Your task to perform on an android device: turn off sleep mode Image 0: 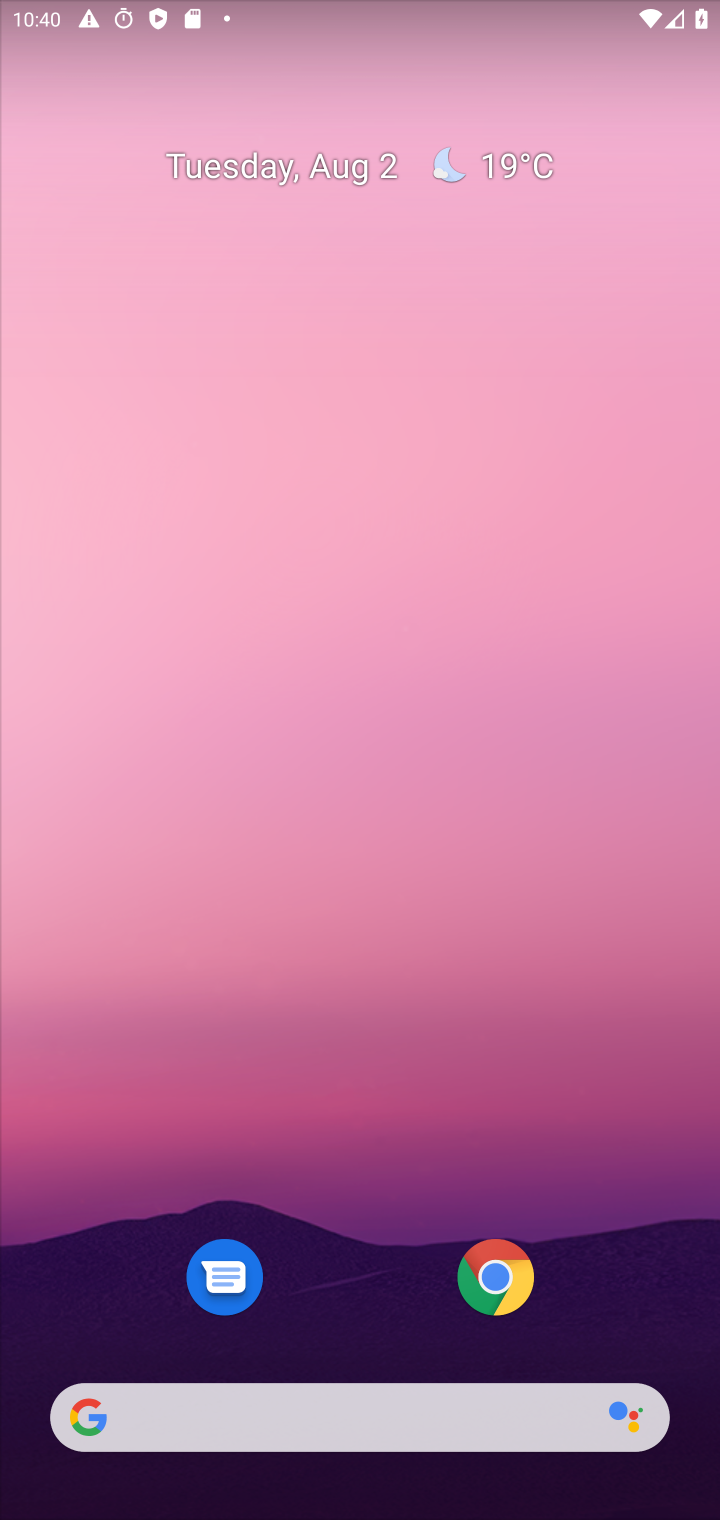
Step 0: press home button
Your task to perform on an android device: turn off sleep mode Image 1: 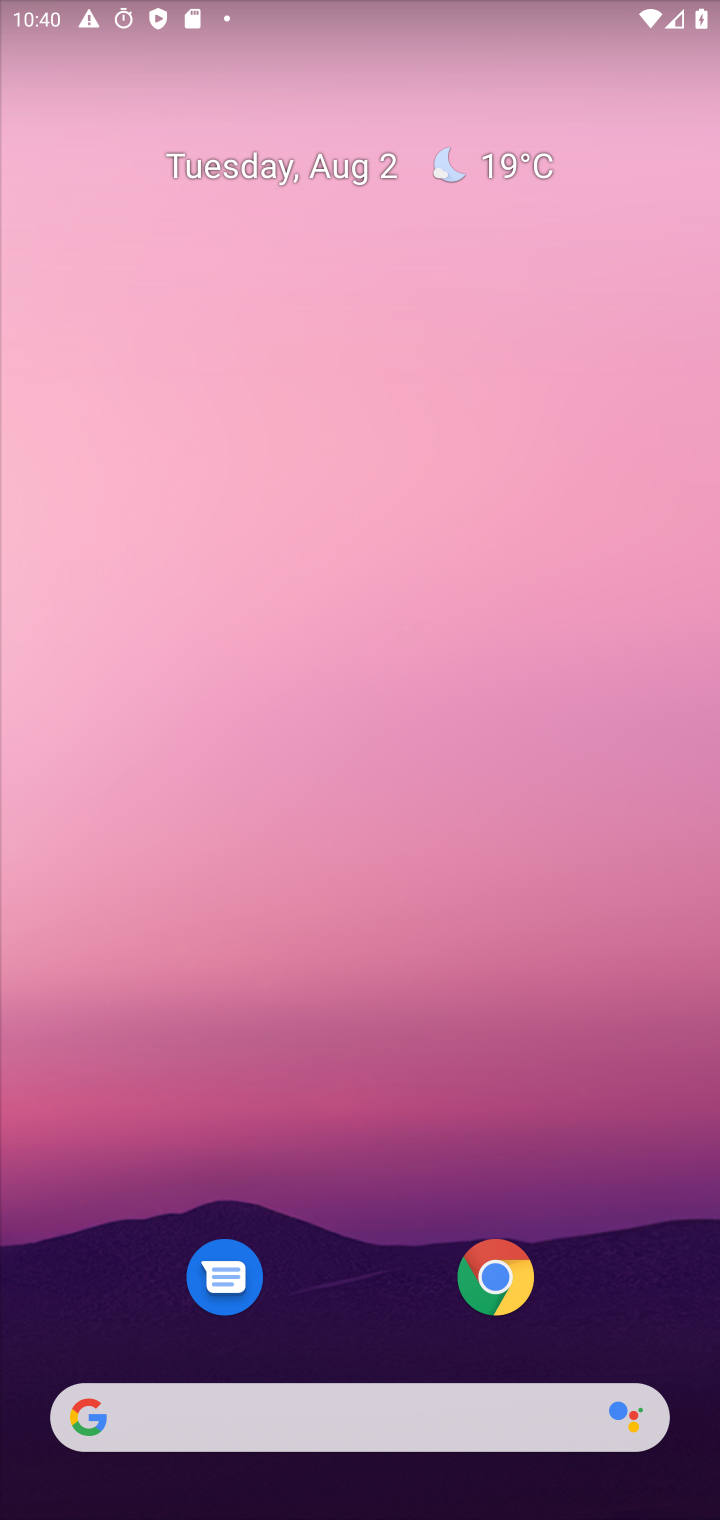
Step 1: drag from (358, 1276) to (381, 122)
Your task to perform on an android device: turn off sleep mode Image 2: 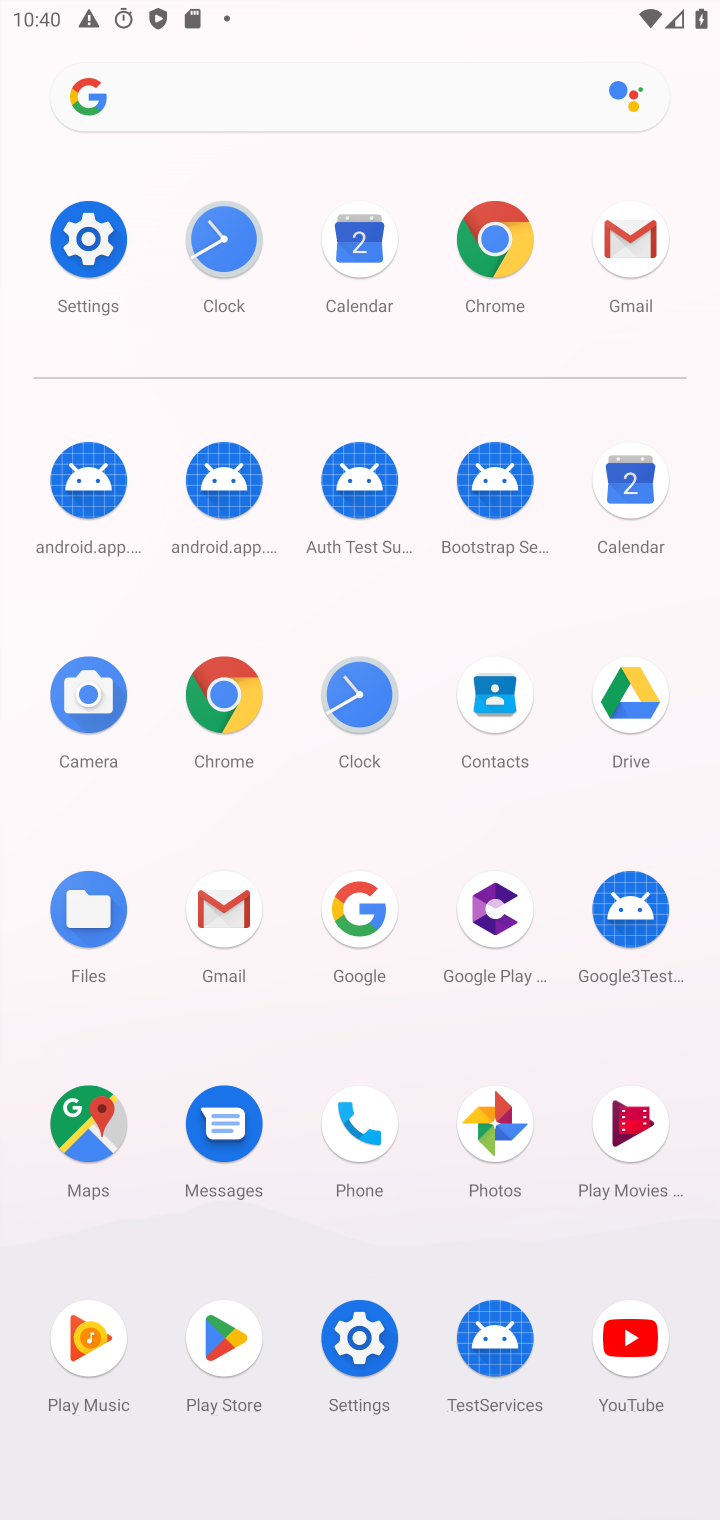
Step 2: click (105, 231)
Your task to perform on an android device: turn off sleep mode Image 3: 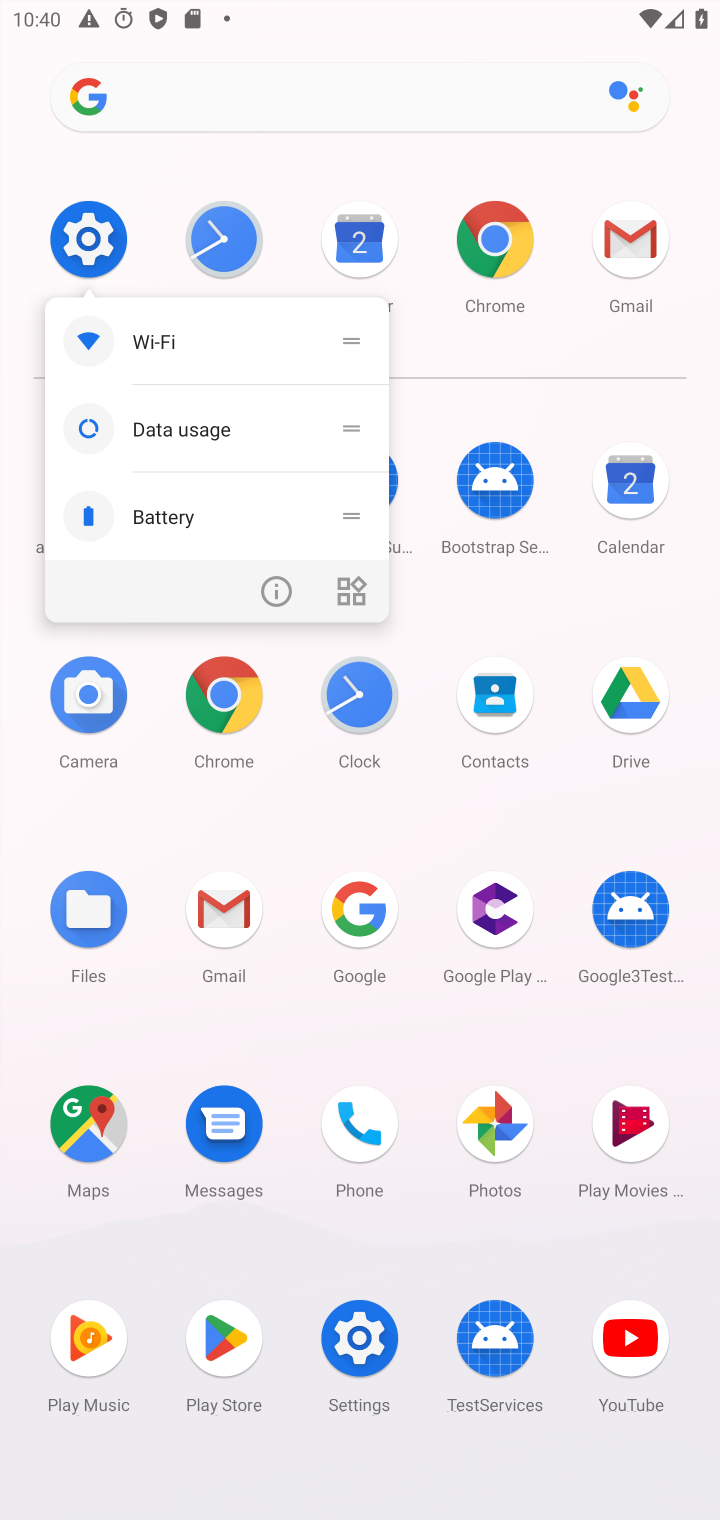
Step 3: click (96, 217)
Your task to perform on an android device: turn off sleep mode Image 4: 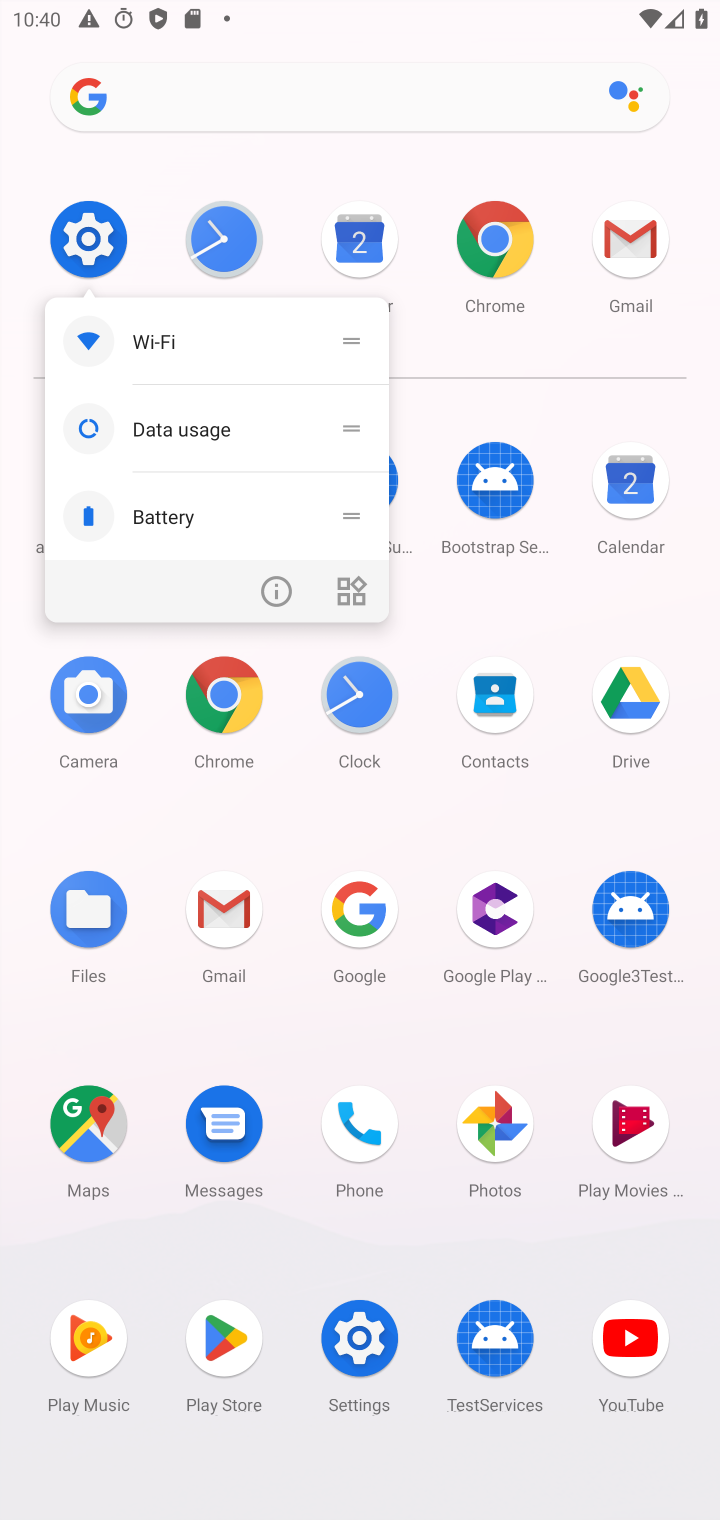
Step 4: click (96, 217)
Your task to perform on an android device: turn off sleep mode Image 5: 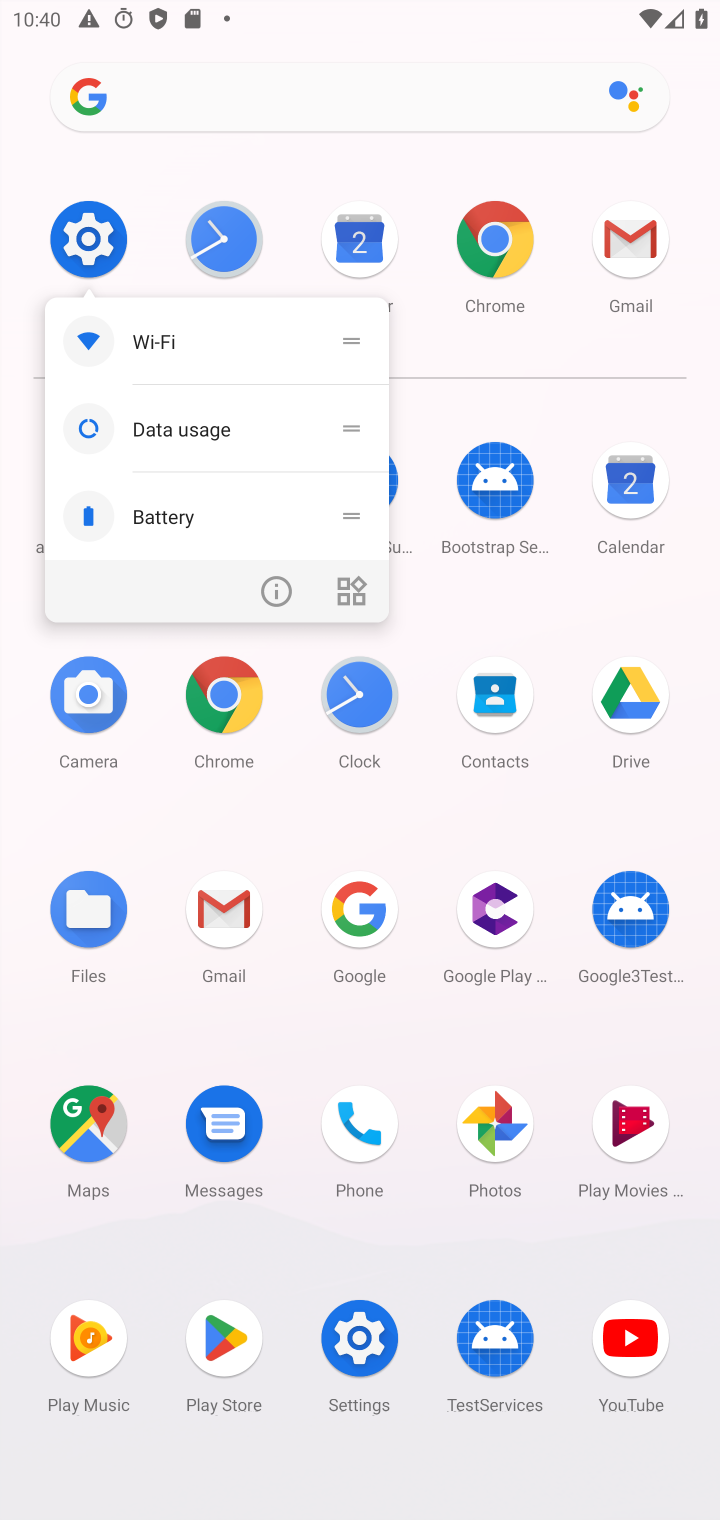
Step 5: click (80, 230)
Your task to perform on an android device: turn off sleep mode Image 6: 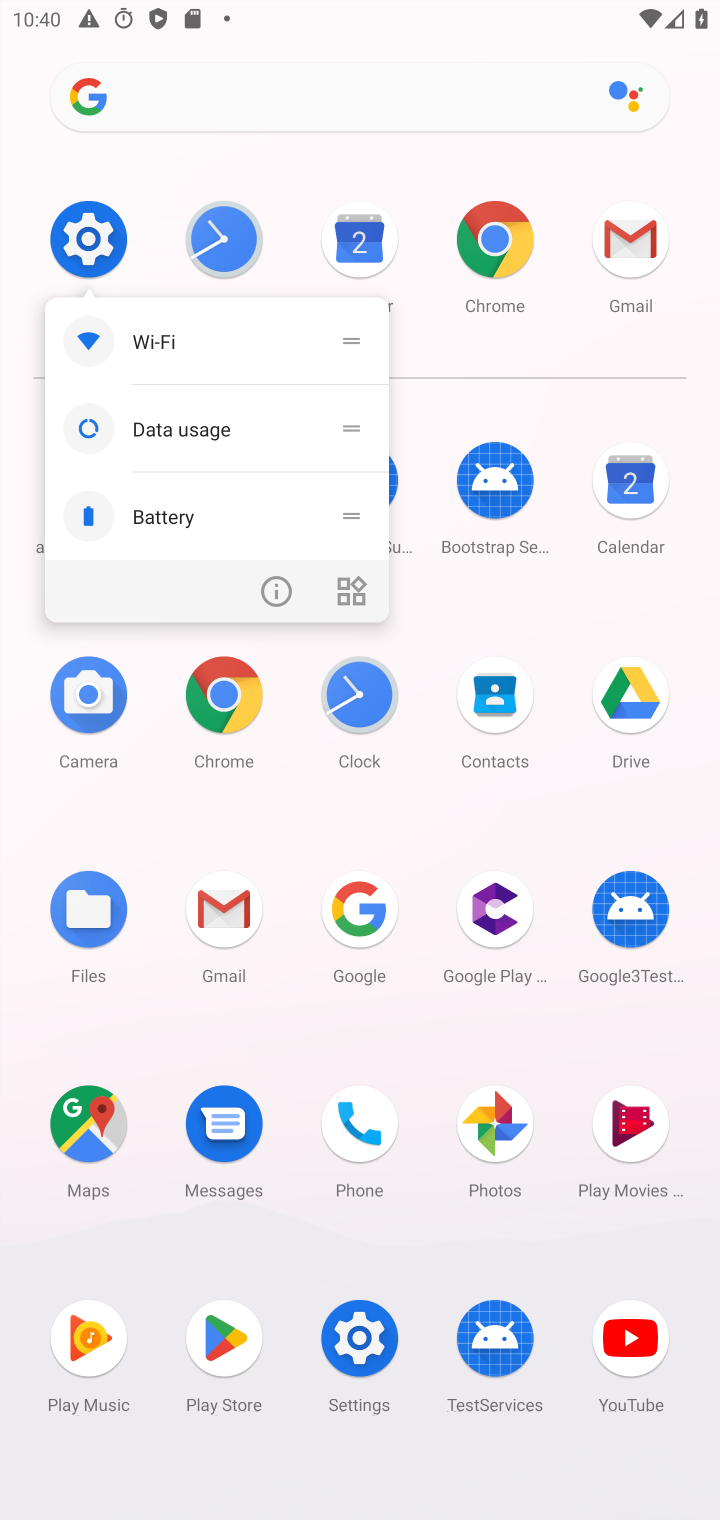
Step 6: click (80, 230)
Your task to perform on an android device: turn off sleep mode Image 7: 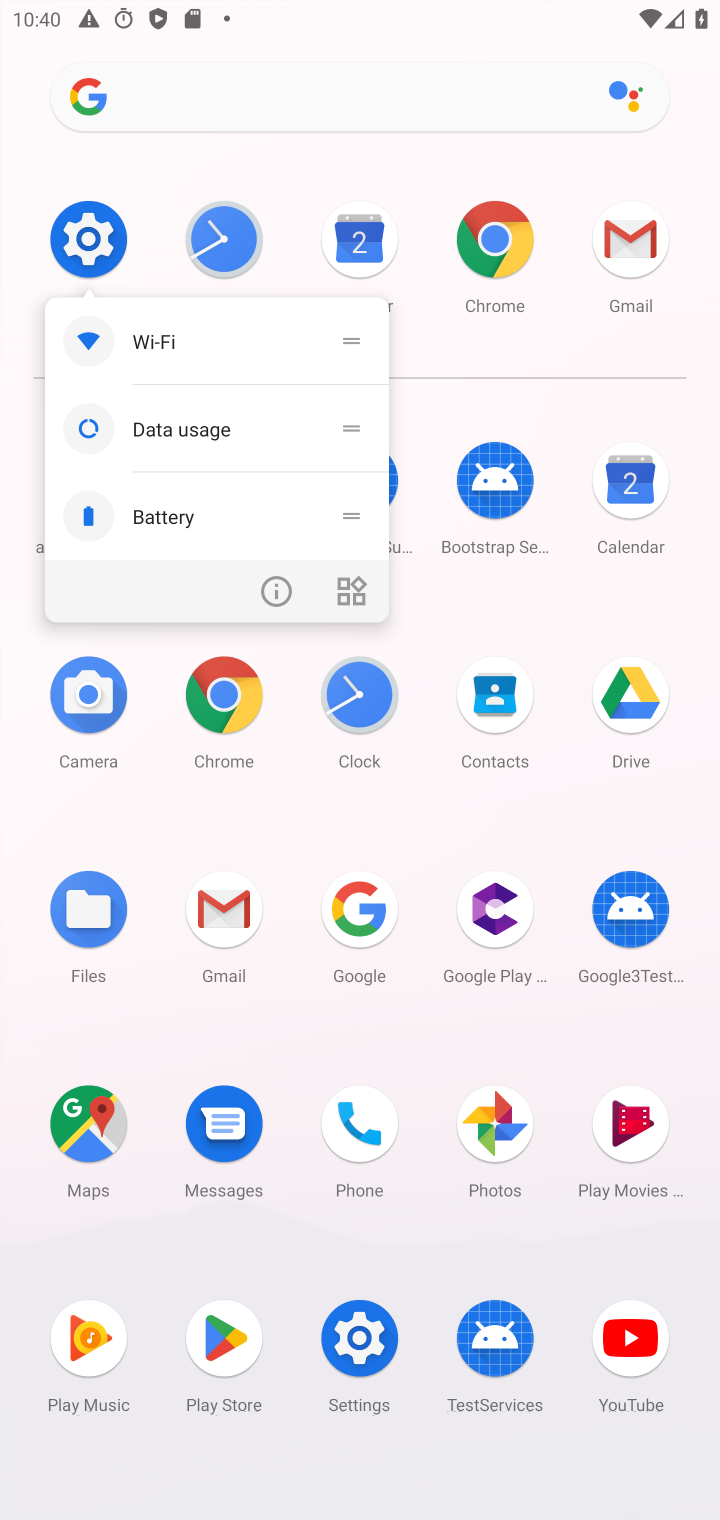
Step 7: click (93, 228)
Your task to perform on an android device: turn off sleep mode Image 8: 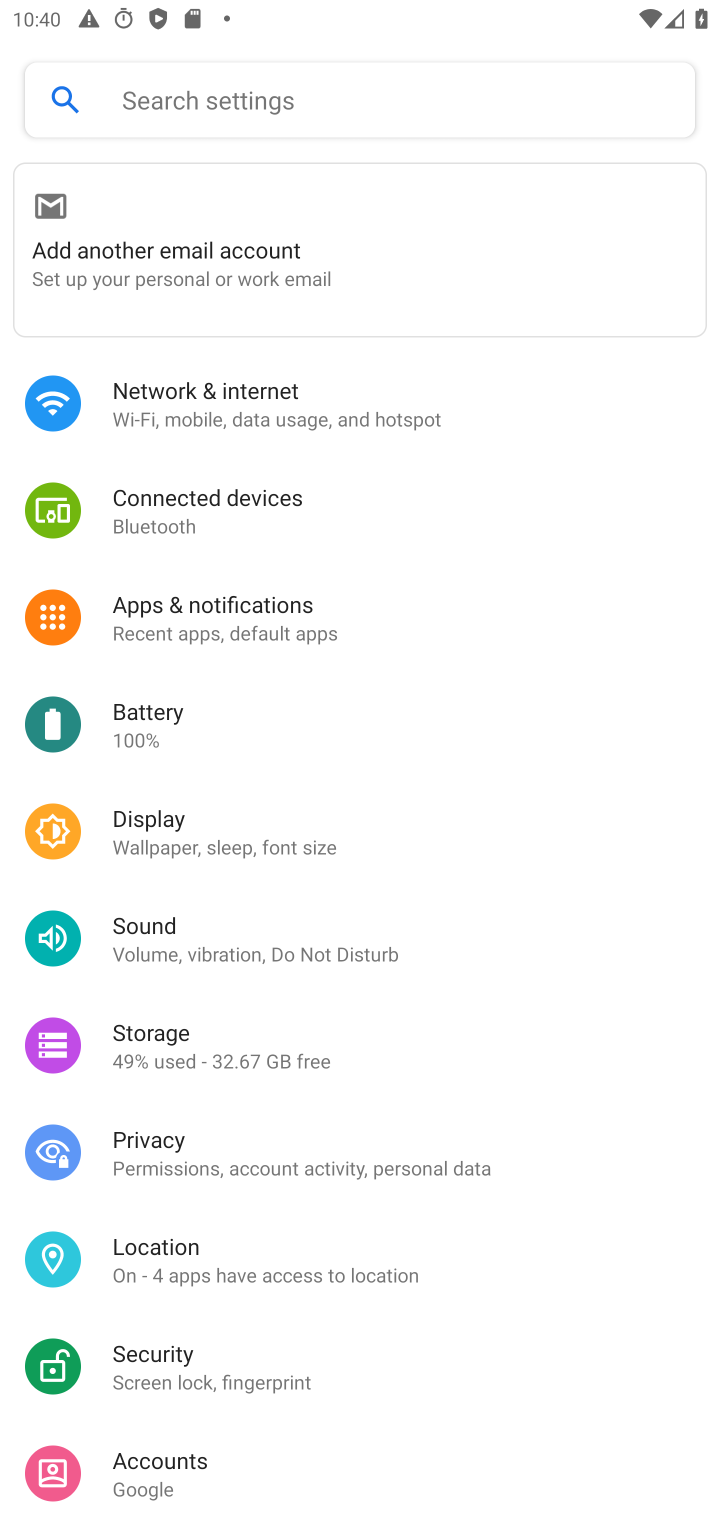
Step 8: click (183, 824)
Your task to perform on an android device: turn off sleep mode Image 9: 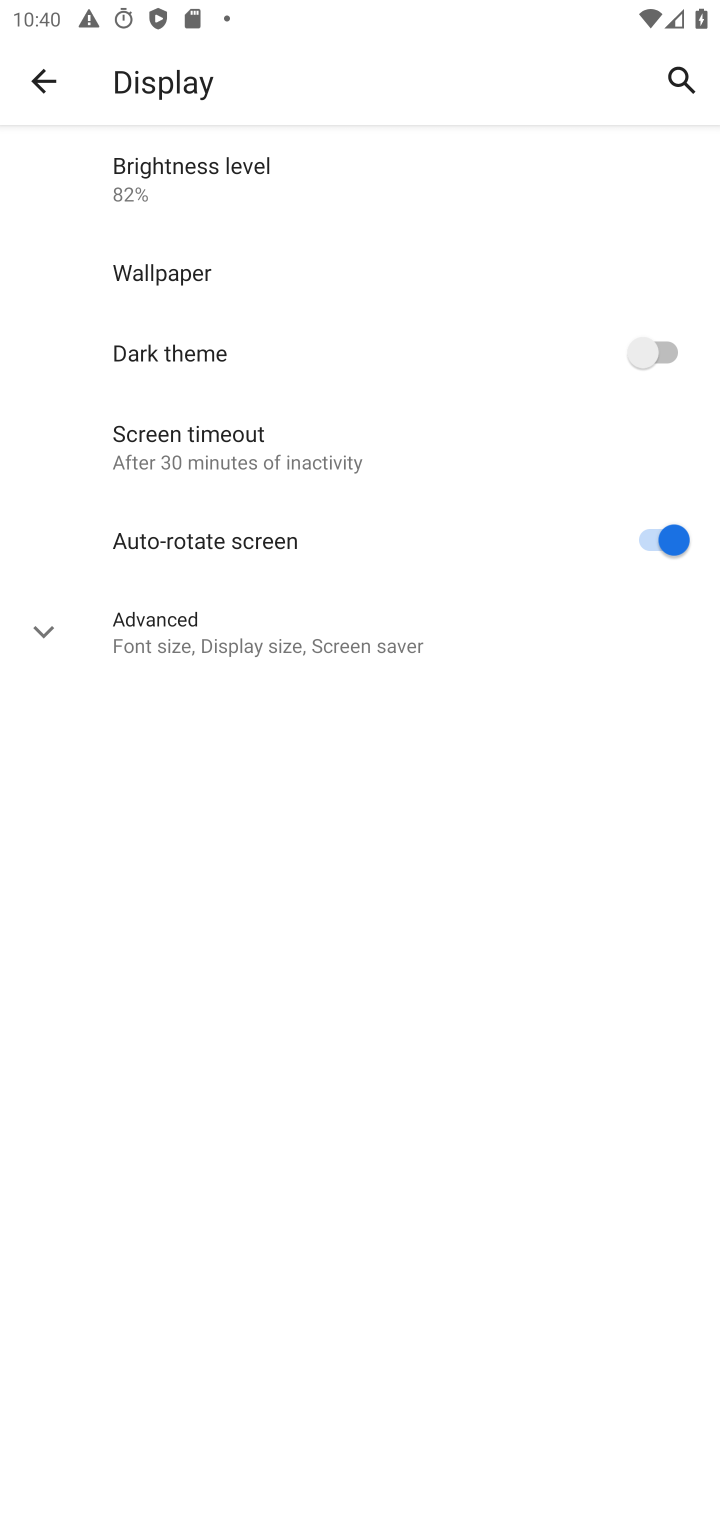
Step 9: click (38, 625)
Your task to perform on an android device: turn off sleep mode Image 10: 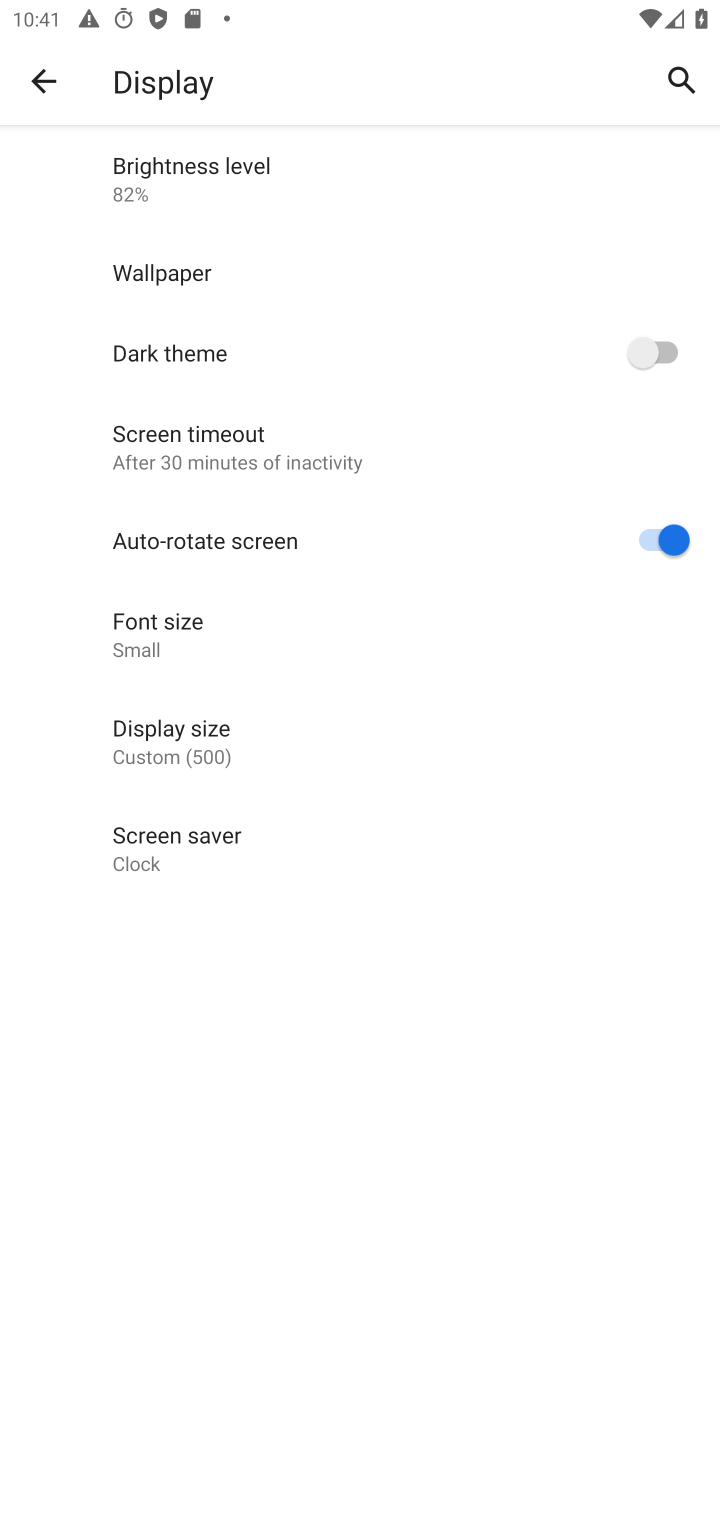
Step 10: task complete